Your task to perform on an android device: Open Google Chrome and open the bookmarks view Image 0: 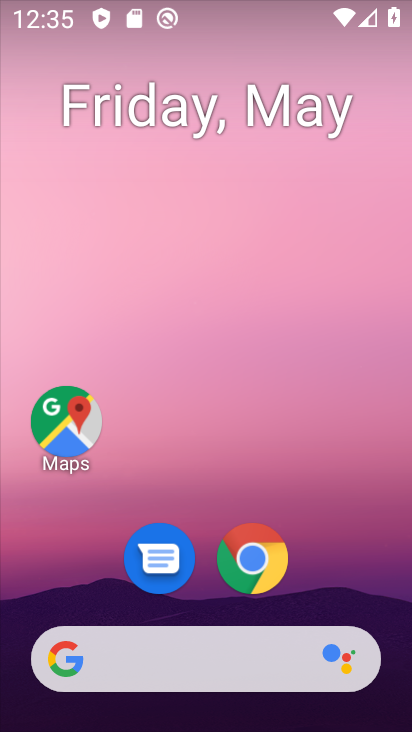
Step 0: drag from (353, 608) to (271, 37)
Your task to perform on an android device: Open Google Chrome and open the bookmarks view Image 1: 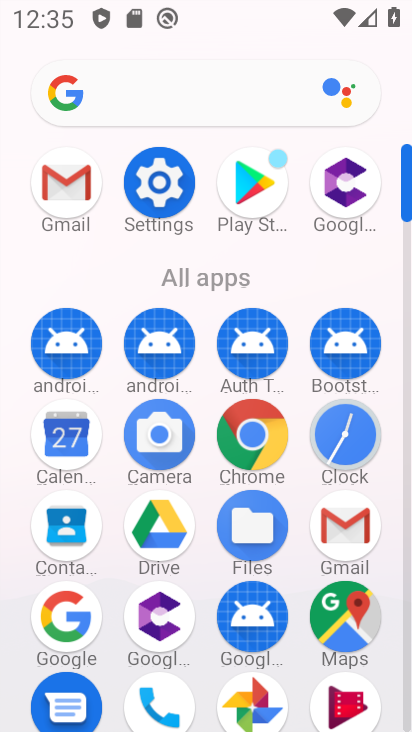
Step 1: click (269, 445)
Your task to perform on an android device: Open Google Chrome and open the bookmarks view Image 2: 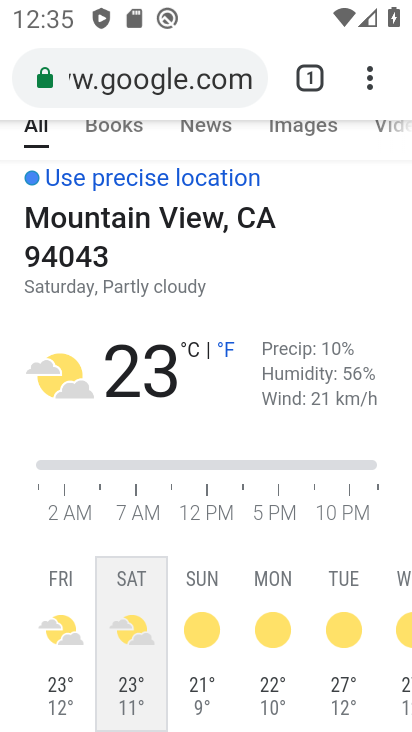
Step 2: click (374, 82)
Your task to perform on an android device: Open Google Chrome and open the bookmarks view Image 3: 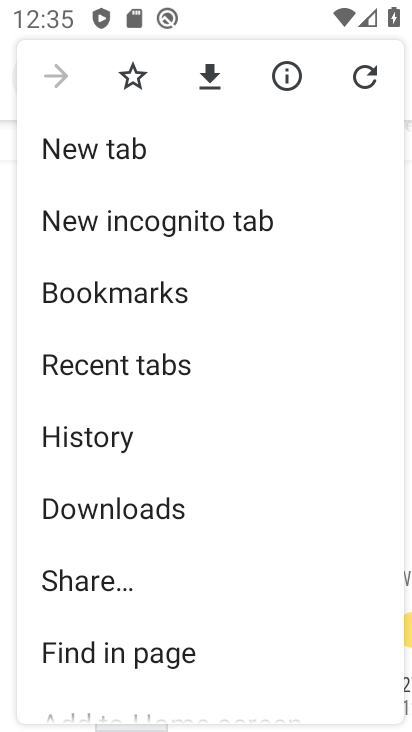
Step 3: click (220, 310)
Your task to perform on an android device: Open Google Chrome and open the bookmarks view Image 4: 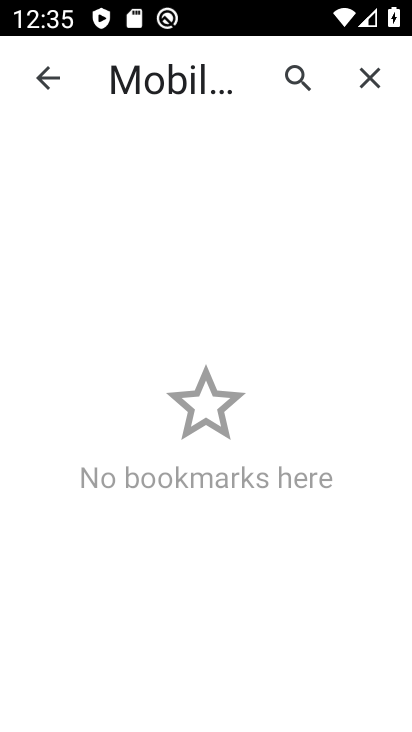
Step 4: task complete